Your task to perform on an android device: change keyboard looks Image 0: 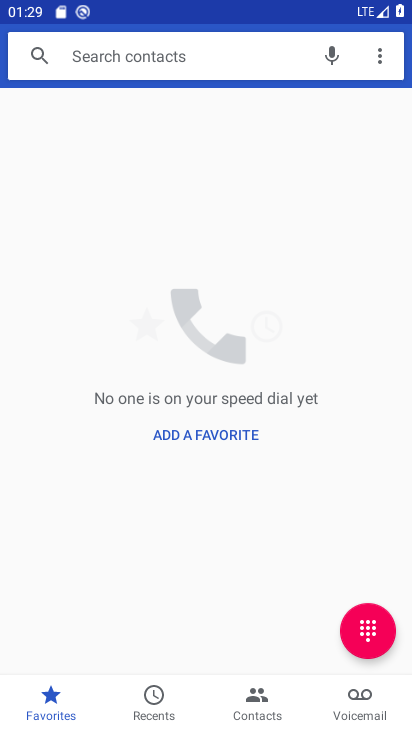
Step 0: press home button
Your task to perform on an android device: change keyboard looks Image 1: 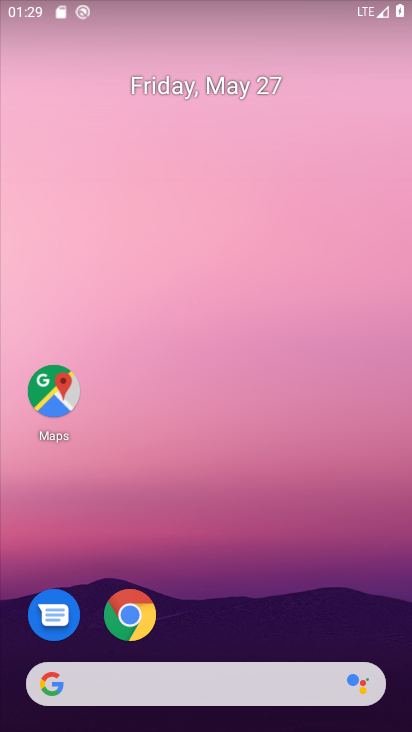
Step 1: drag from (349, 627) to (355, 166)
Your task to perform on an android device: change keyboard looks Image 2: 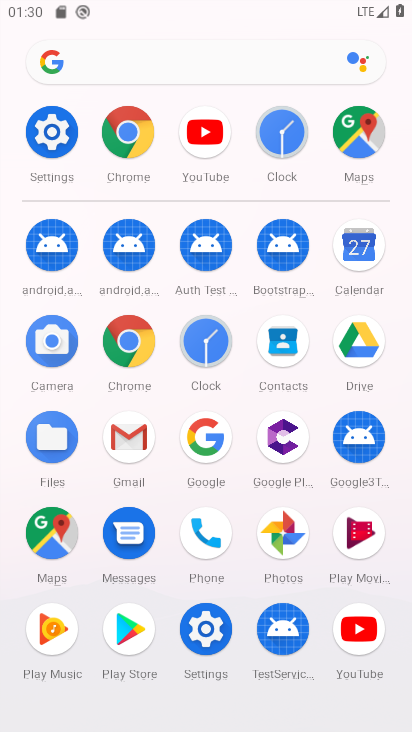
Step 2: click (62, 136)
Your task to perform on an android device: change keyboard looks Image 3: 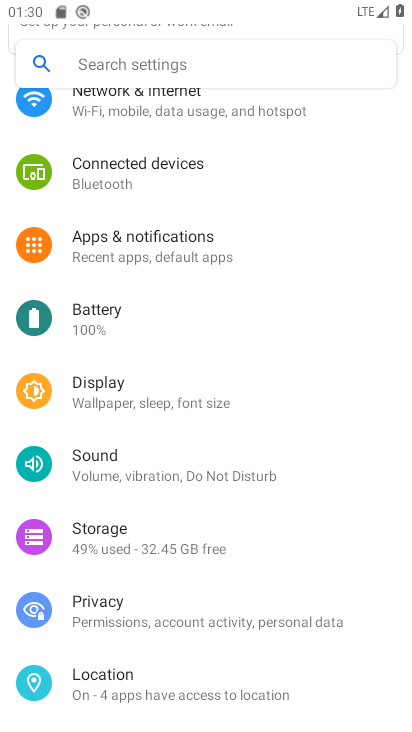
Step 3: drag from (330, 336) to (327, 275)
Your task to perform on an android device: change keyboard looks Image 4: 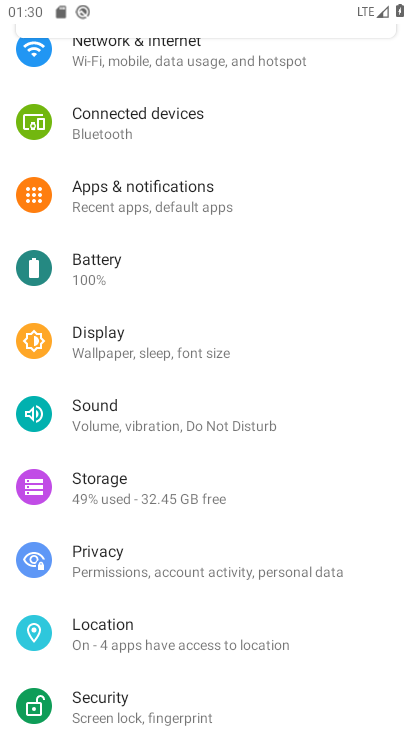
Step 4: drag from (340, 371) to (339, 305)
Your task to perform on an android device: change keyboard looks Image 5: 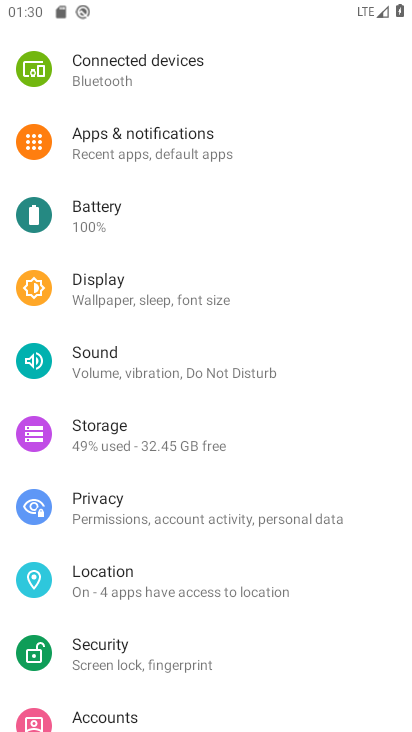
Step 5: drag from (352, 391) to (353, 317)
Your task to perform on an android device: change keyboard looks Image 6: 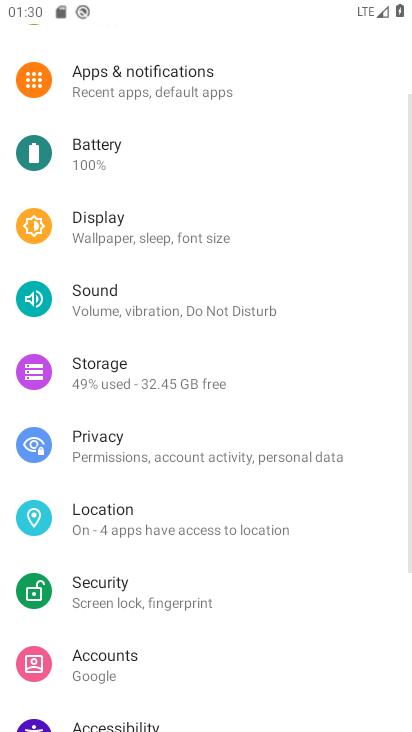
Step 6: drag from (371, 366) to (370, 330)
Your task to perform on an android device: change keyboard looks Image 7: 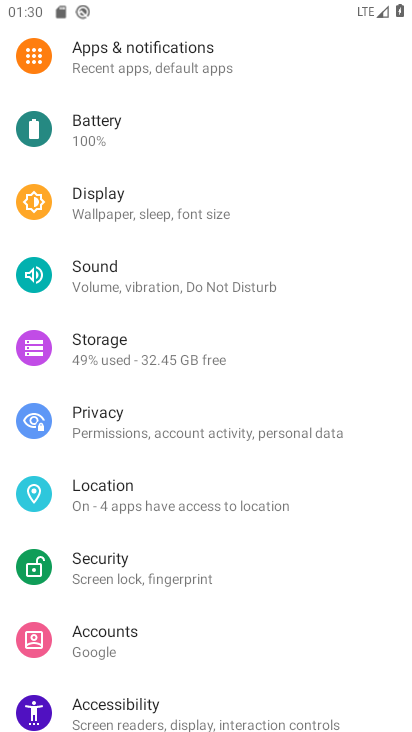
Step 7: click (376, 358)
Your task to perform on an android device: change keyboard looks Image 8: 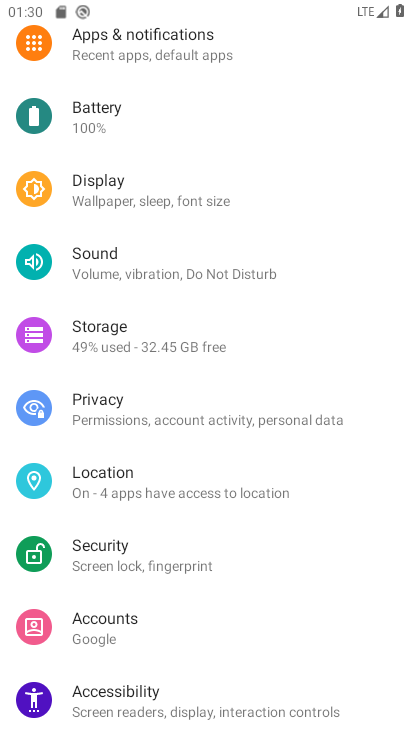
Step 8: drag from (382, 370) to (380, 329)
Your task to perform on an android device: change keyboard looks Image 9: 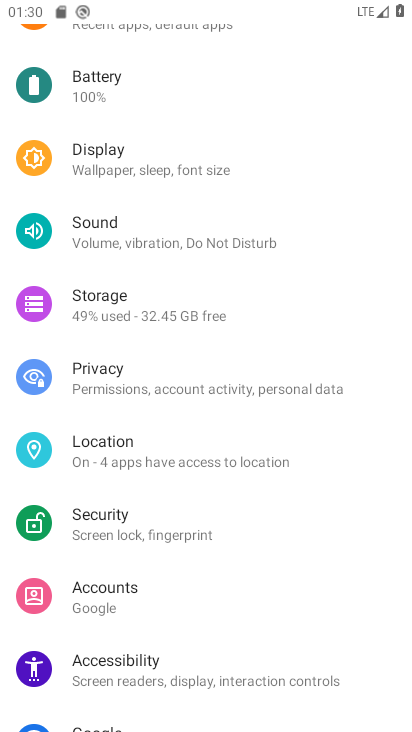
Step 9: drag from (387, 339) to (387, 294)
Your task to perform on an android device: change keyboard looks Image 10: 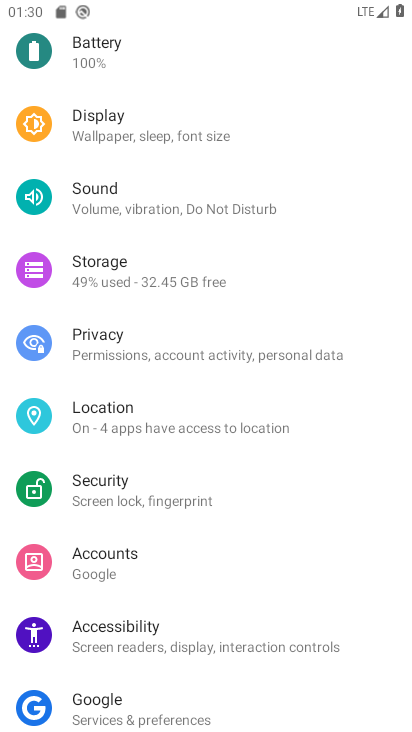
Step 10: drag from (360, 395) to (365, 356)
Your task to perform on an android device: change keyboard looks Image 11: 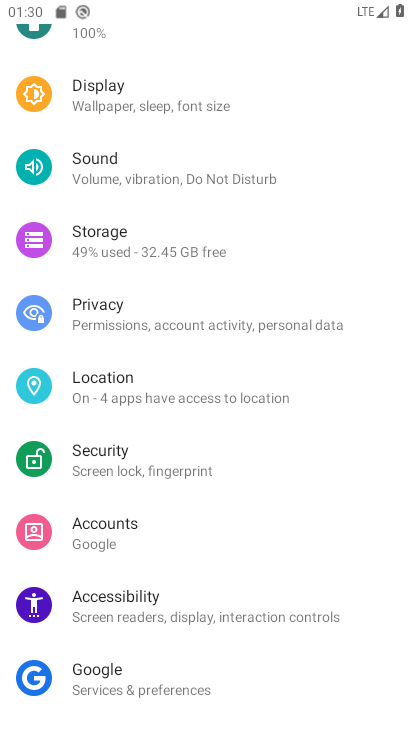
Step 11: drag from (337, 427) to (338, 370)
Your task to perform on an android device: change keyboard looks Image 12: 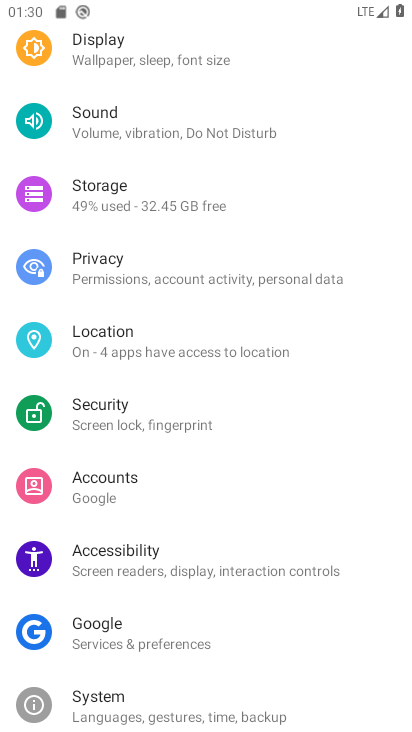
Step 12: drag from (269, 648) to (304, 457)
Your task to perform on an android device: change keyboard looks Image 13: 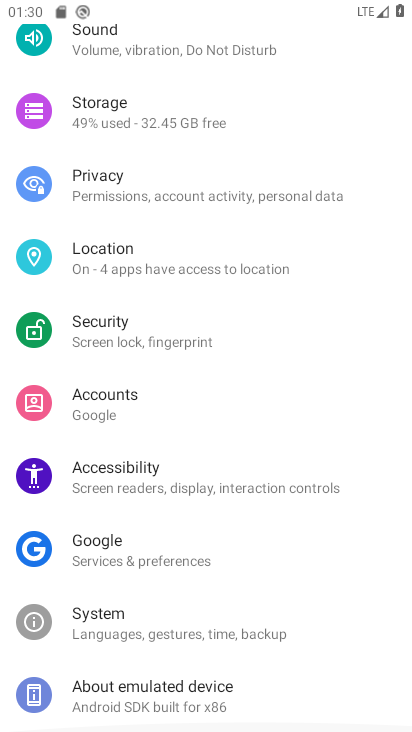
Step 13: click (256, 634)
Your task to perform on an android device: change keyboard looks Image 14: 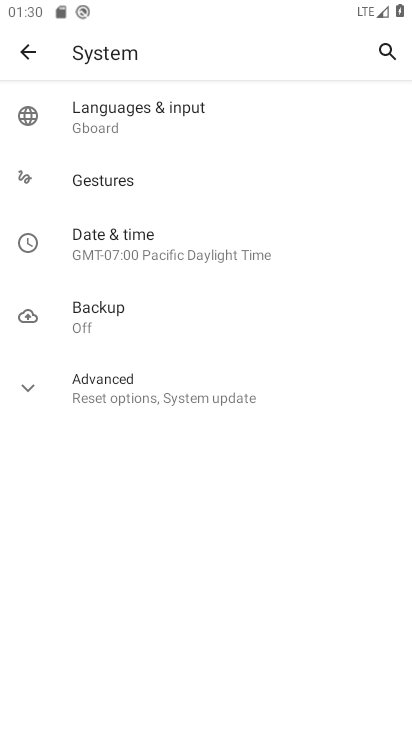
Step 14: click (166, 127)
Your task to perform on an android device: change keyboard looks Image 15: 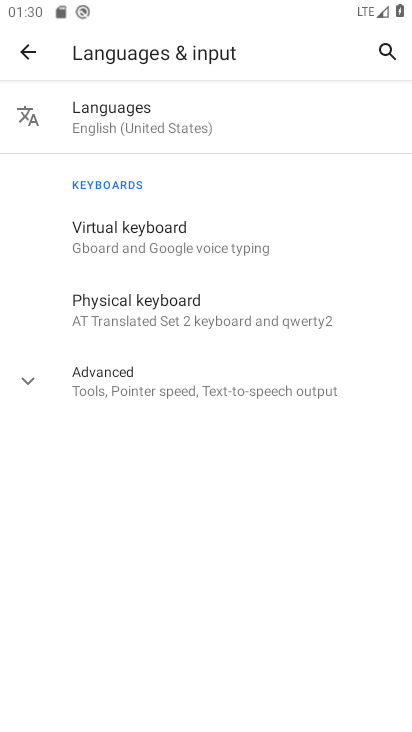
Step 15: click (175, 233)
Your task to perform on an android device: change keyboard looks Image 16: 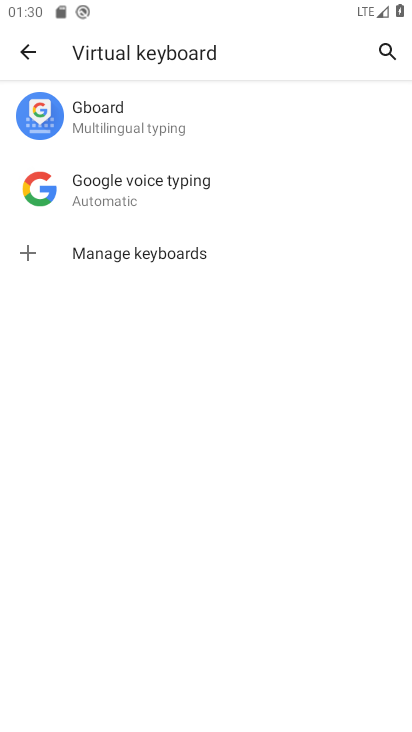
Step 16: click (157, 114)
Your task to perform on an android device: change keyboard looks Image 17: 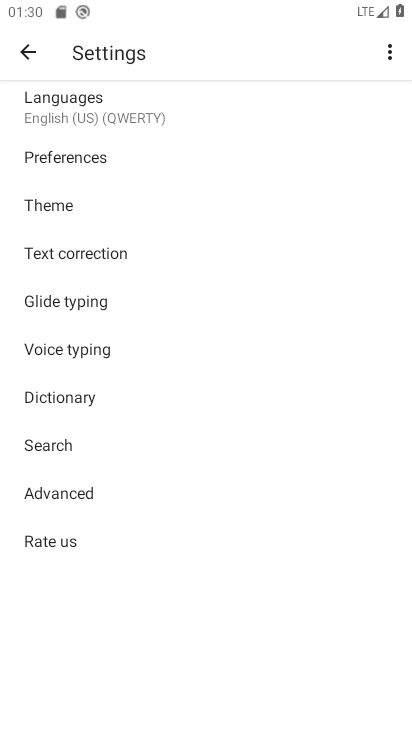
Step 17: click (127, 205)
Your task to perform on an android device: change keyboard looks Image 18: 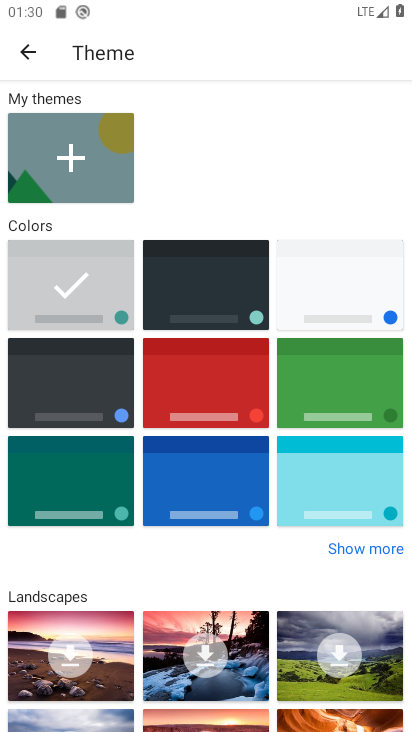
Step 18: click (203, 375)
Your task to perform on an android device: change keyboard looks Image 19: 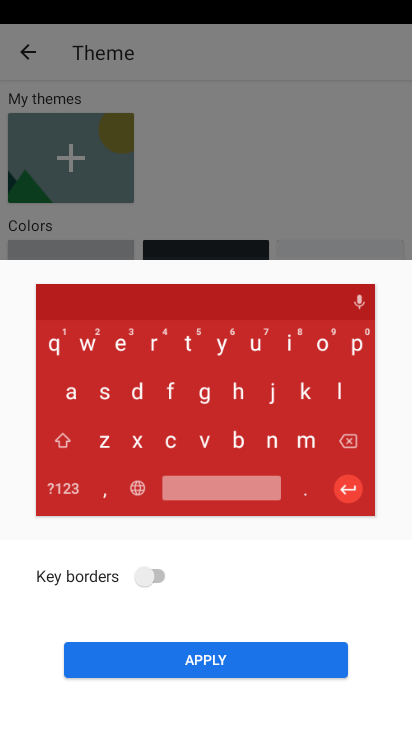
Step 19: click (225, 657)
Your task to perform on an android device: change keyboard looks Image 20: 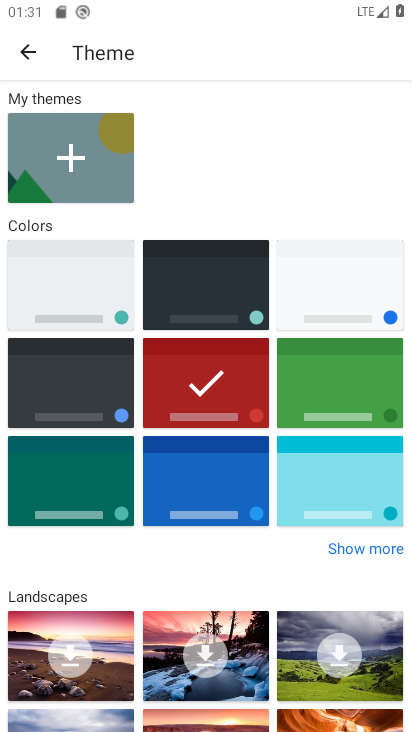
Step 20: task complete